Your task to perform on an android device: add a contact in the contacts app Image 0: 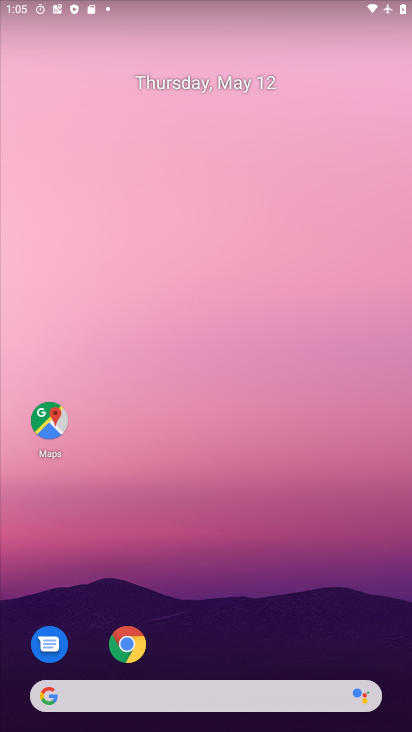
Step 0: drag from (247, 625) to (171, 138)
Your task to perform on an android device: add a contact in the contacts app Image 1: 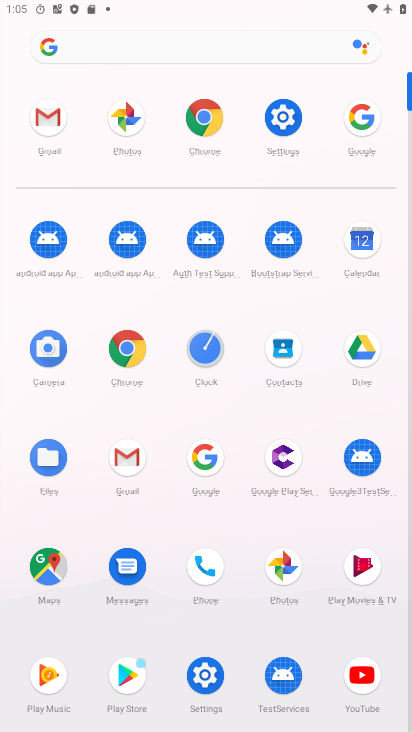
Step 1: click (277, 356)
Your task to perform on an android device: add a contact in the contacts app Image 2: 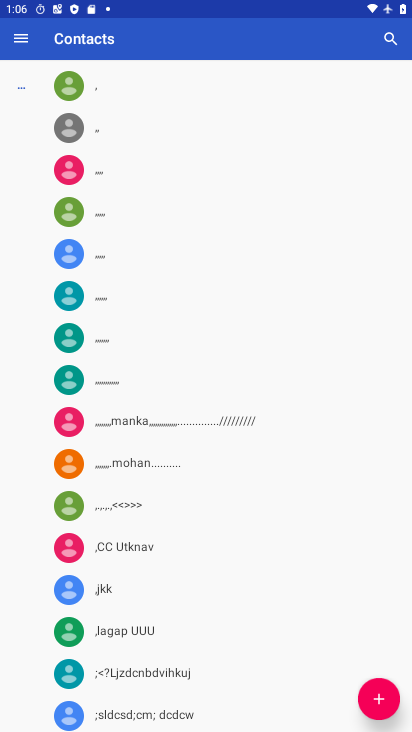
Step 2: click (374, 694)
Your task to perform on an android device: add a contact in the contacts app Image 3: 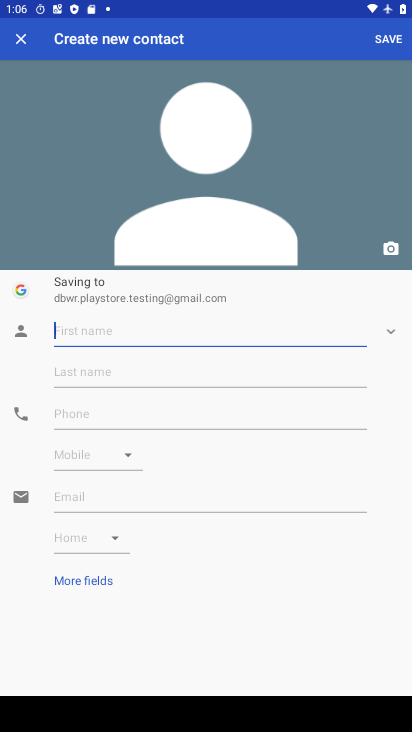
Step 3: type "fgsdf"
Your task to perform on an android device: add a contact in the contacts app Image 4: 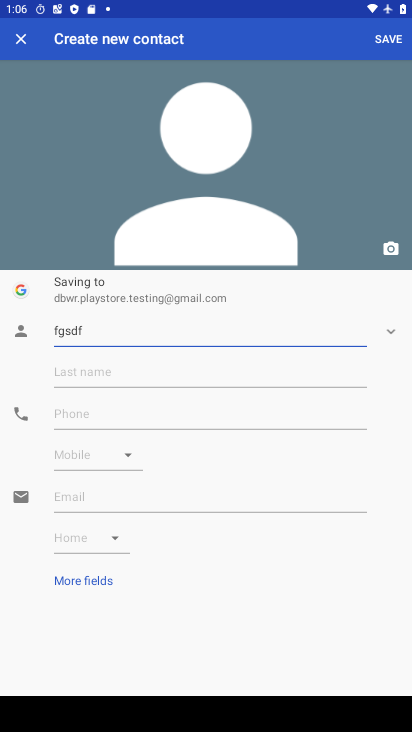
Step 4: click (199, 379)
Your task to perform on an android device: add a contact in the contacts app Image 5: 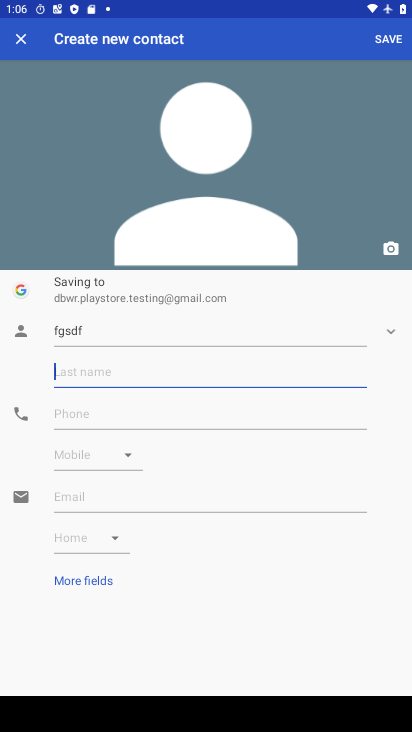
Step 5: type "dfgsdf"
Your task to perform on an android device: add a contact in the contacts app Image 6: 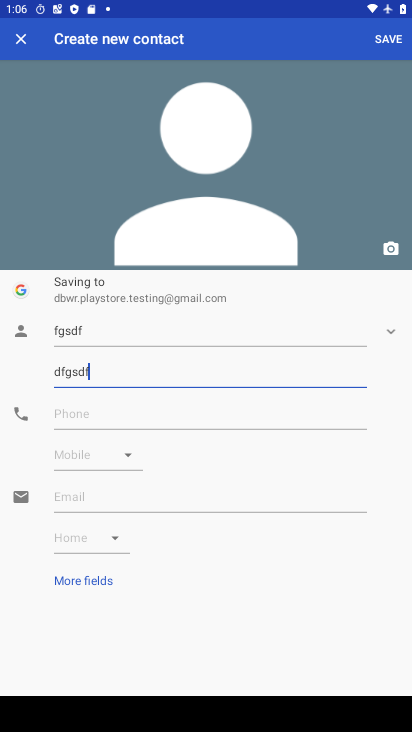
Step 6: type ""
Your task to perform on an android device: add a contact in the contacts app Image 7: 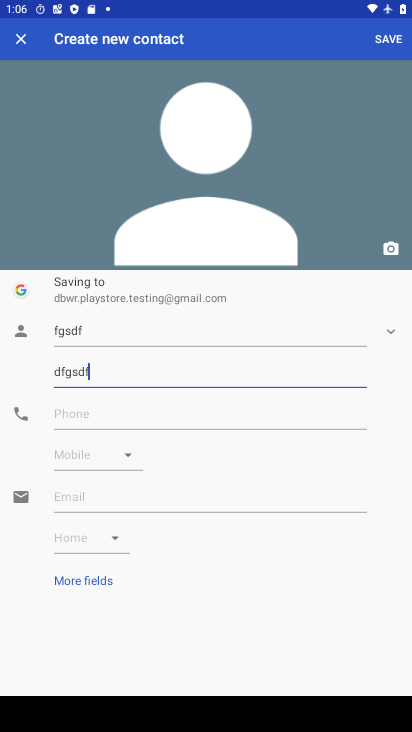
Step 7: click (291, 414)
Your task to perform on an android device: add a contact in the contacts app Image 8: 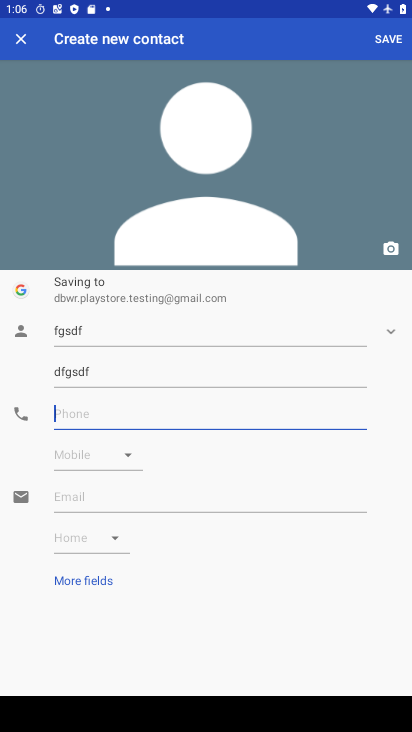
Step 8: type "5463456456"
Your task to perform on an android device: add a contact in the contacts app Image 9: 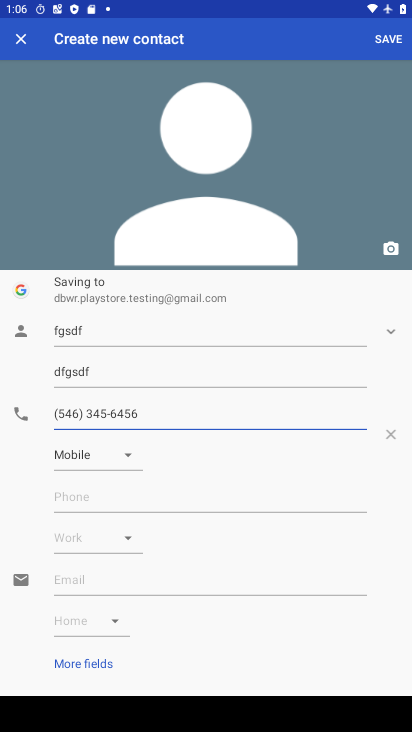
Step 9: click (385, 37)
Your task to perform on an android device: add a contact in the contacts app Image 10: 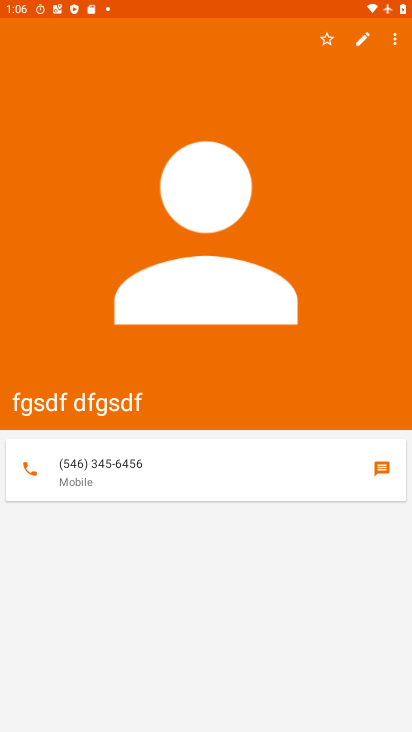
Step 10: task complete